Your task to perform on an android device: Turn on the flashlight Image 0: 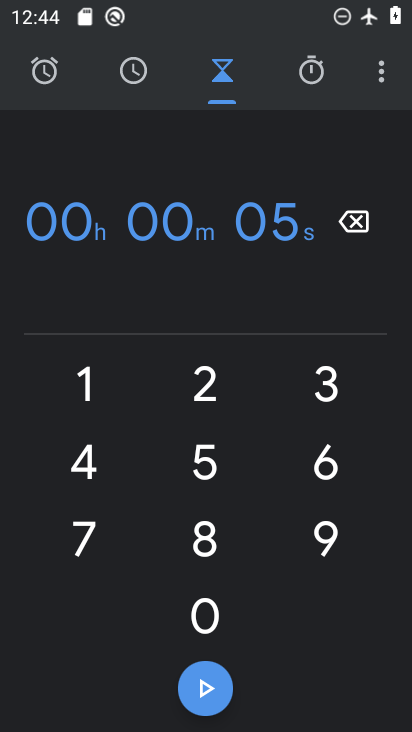
Step 0: press home button
Your task to perform on an android device: Turn on the flashlight Image 1: 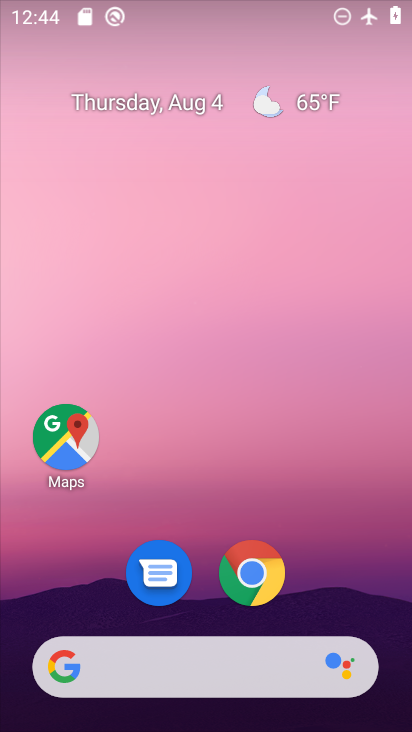
Step 1: drag from (318, 567) to (297, 86)
Your task to perform on an android device: Turn on the flashlight Image 2: 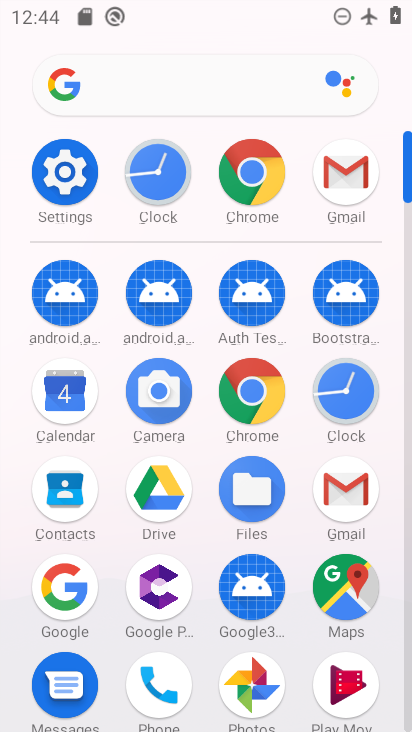
Step 2: click (57, 173)
Your task to perform on an android device: Turn on the flashlight Image 3: 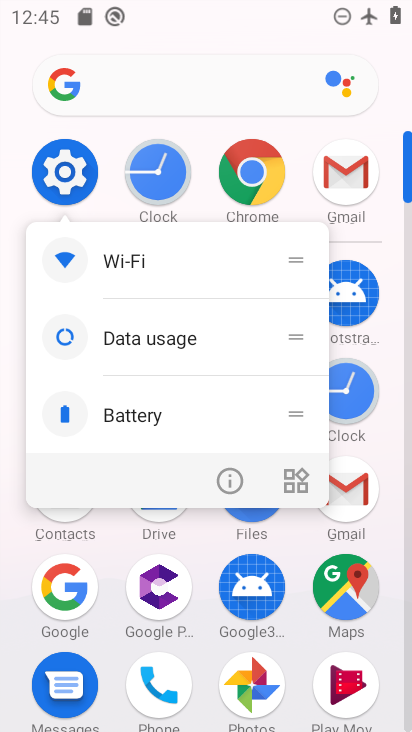
Step 3: click (380, 342)
Your task to perform on an android device: Turn on the flashlight Image 4: 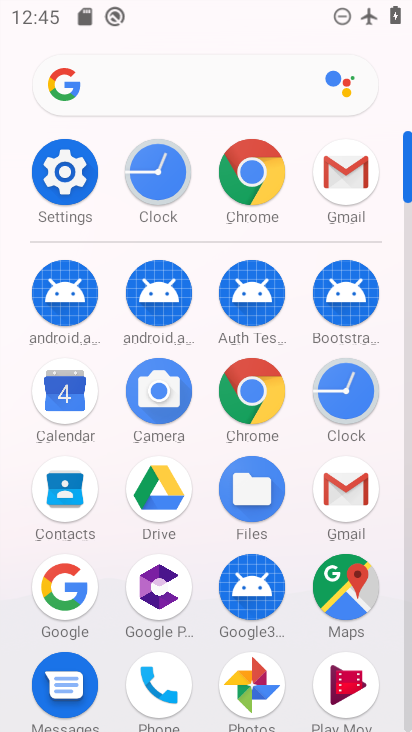
Step 4: drag from (298, 554) to (293, 179)
Your task to perform on an android device: Turn on the flashlight Image 5: 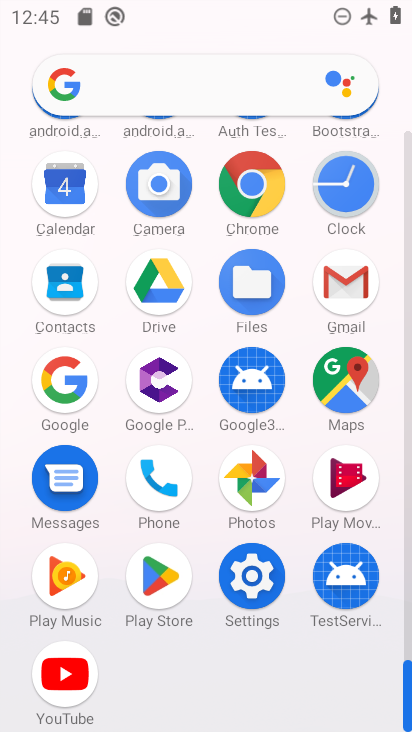
Step 5: click (258, 603)
Your task to perform on an android device: Turn on the flashlight Image 6: 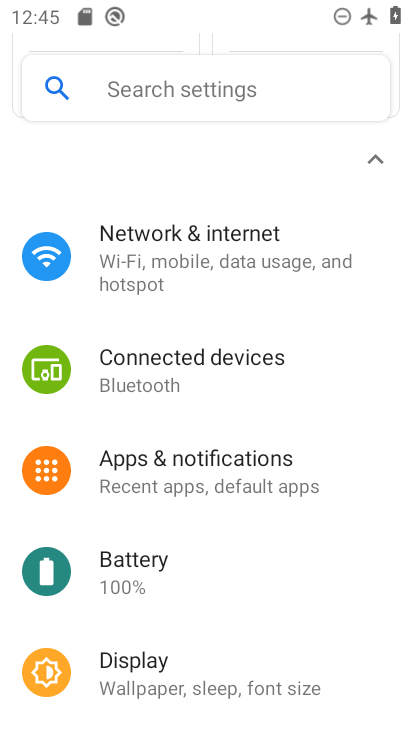
Step 6: click (163, 658)
Your task to perform on an android device: Turn on the flashlight Image 7: 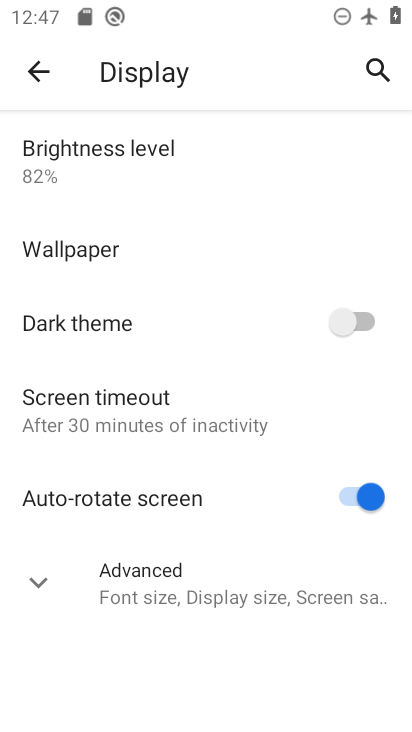
Step 7: click (93, 392)
Your task to perform on an android device: Turn on the flashlight Image 8: 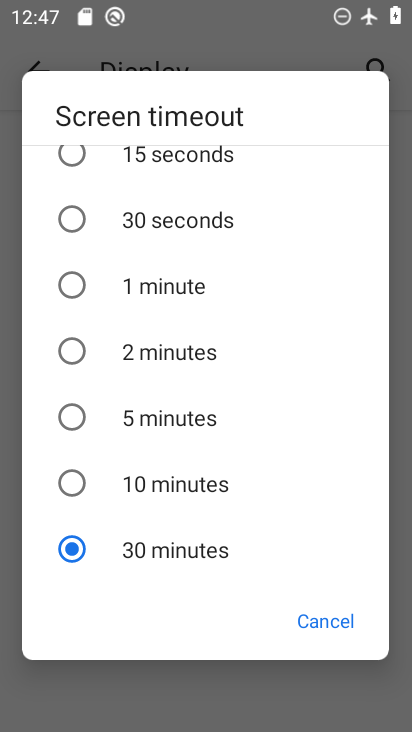
Step 8: task complete